Your task to perform on an android device: Open Chrome and go to settings Image 0: 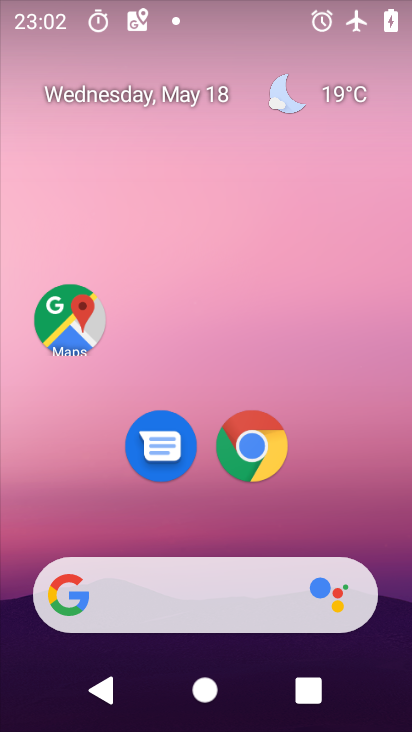
Step 0: press home button
Your task to perform on an android device: Open Chrome and go to settings Image 1: 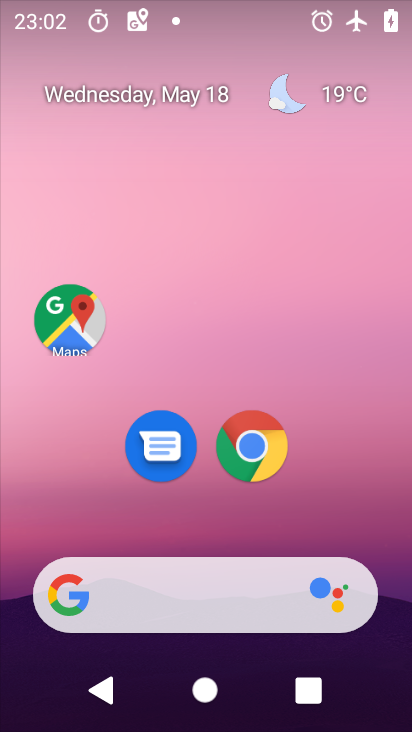
Step 1: click (261, 448)
Your task to perform on an android device: Open Chrome and go to settings Image 2: 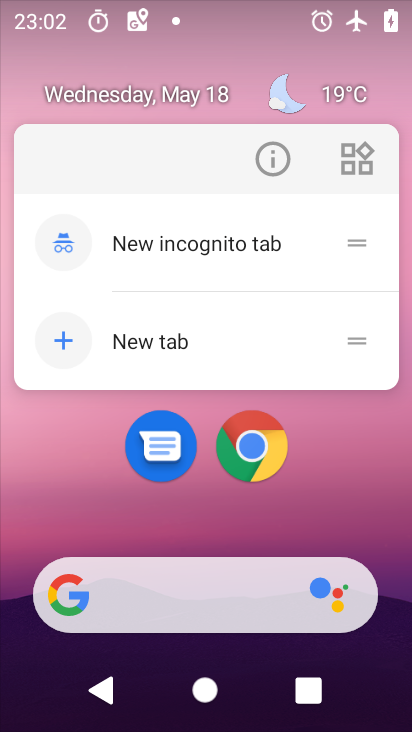
Step 2: click (260, 452)
Your task to perform on an android device: Open Chrome and go to settings Image 3: 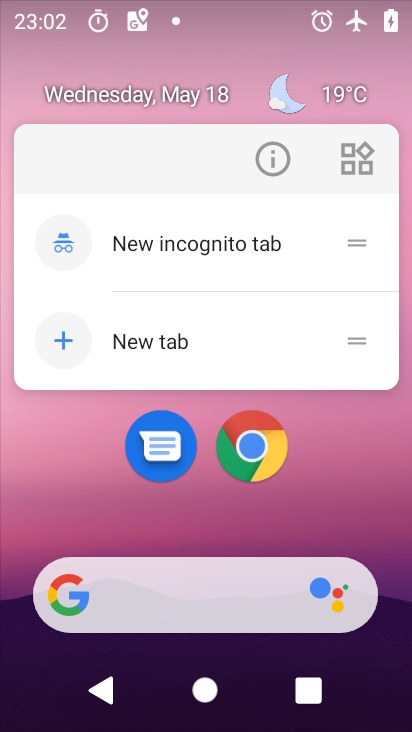
Step 3: click (251, 459)
Your task to perform on an android device: Open Chrome and go to settings Image 4: 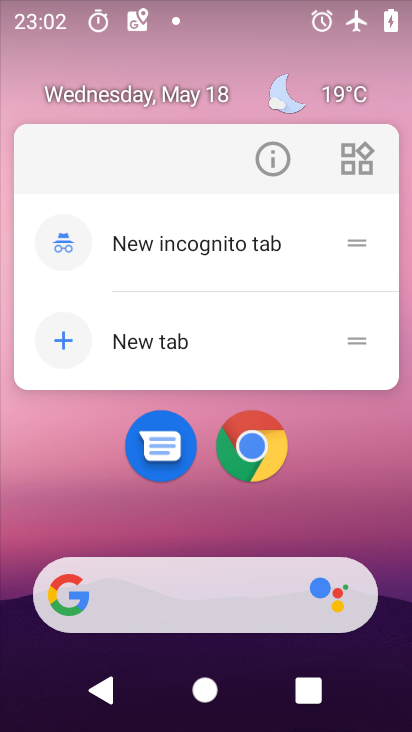
Step 4: click (242, 453)
Your task to perform on an android device: Open Chrome and go to settings Image 5: 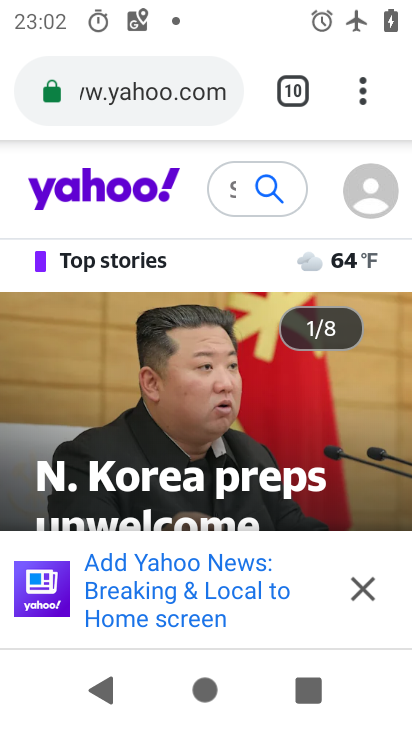
Step 5: task complete